Your task to perform on an android device: turn off picture-in-picture Image 0: 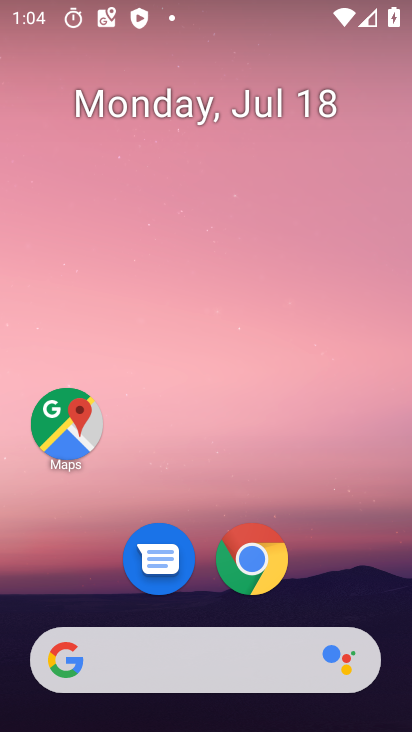
Step 0: drag from (42, 561) to (265, 1)
Your task to perform on an android device: turn off picture-in-picture Image 1: 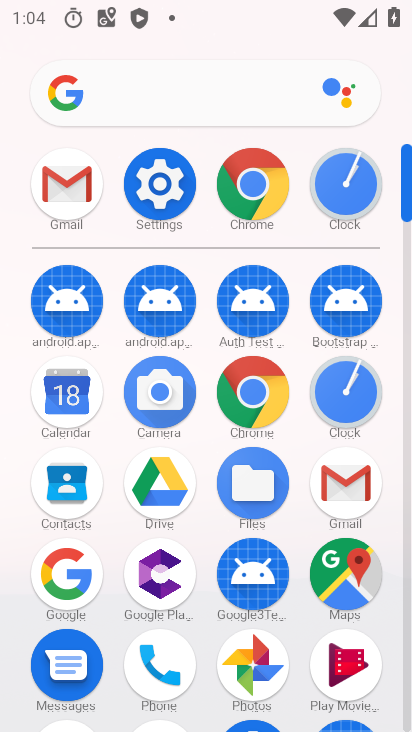
Step 1: click (158, 192)
Your task to perform on an android device: turn off picture-in-picture Image 2: 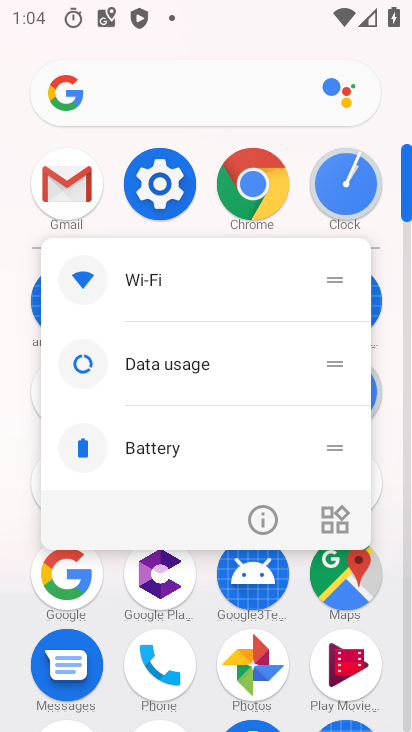
Step 2: click (153, 176)
Your task to perform on an android device: turn off picture-in-picture Image 3: 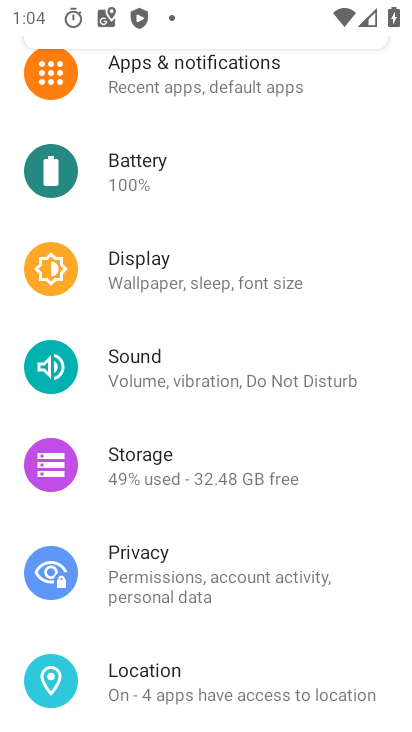
Step 3: drag from (174, 163) to (144, 680)
Your task to perform on an android device: turn off picture-in-picture Image 4: 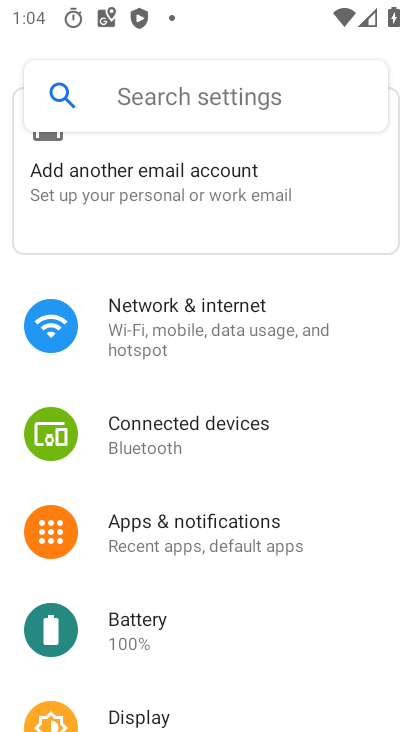
Step 4: click (209, 533)
Your task to perform on an android device: turn off picture-in-picture Image 5: 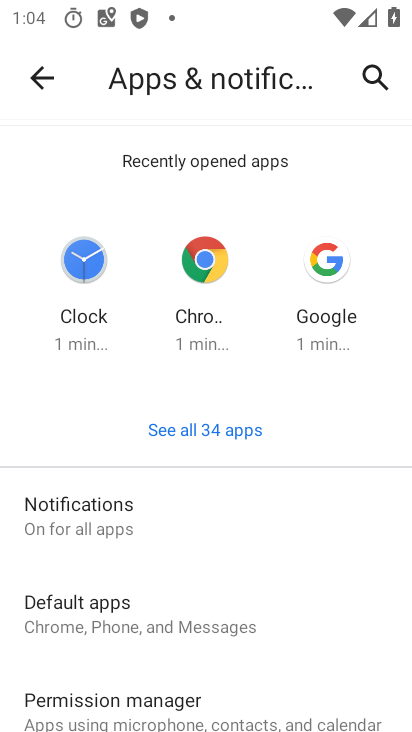
Step 5: drag from (154, 643) to (246, 5)
Your task to perform on an android device: turn off picture-in-picture Image 6: 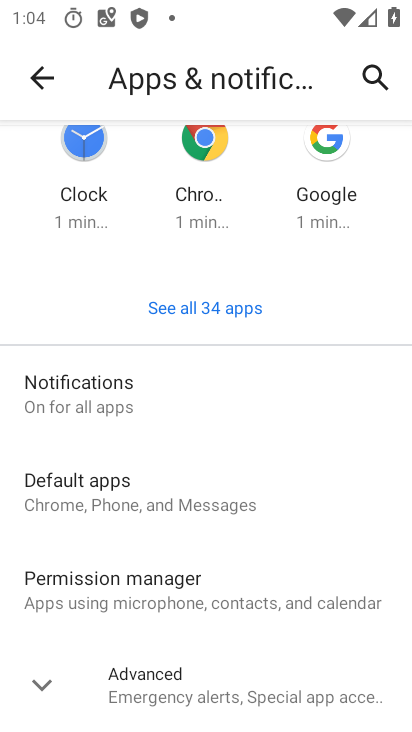
Step 6: click (178, 697)
Your task to perform on an android device: turn off picture-in-picture Image 7: 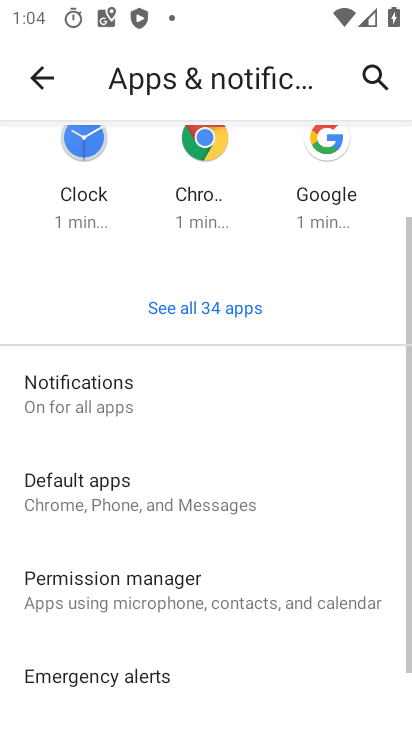
Step 7: drag from (175, 680) to (172, 46)
Your task to perform on an android device: turn off picture-in-picture Image 8: 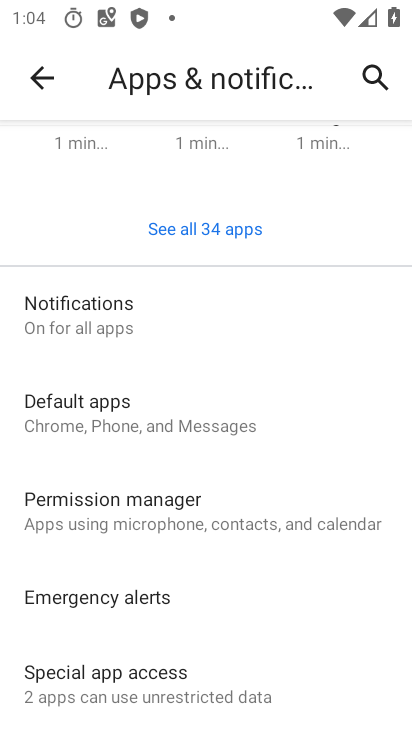
Step 8: click (105, 675)
Your task to perform on an android device: turn off picture-in-picture Image 9: 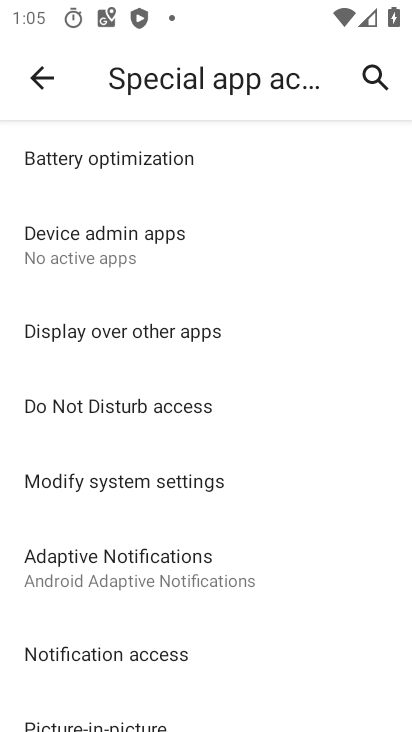
Step 9: drag from (94, 668) to (150, 328)
Your task to perform on an android device: turn off picture-in-picture Image 10: 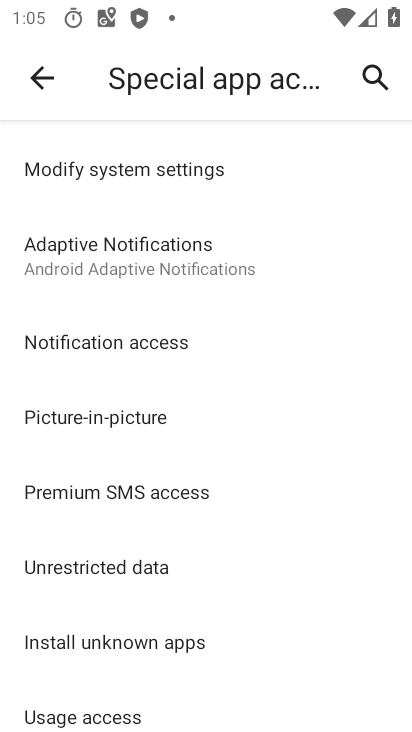
Step 10: click (103, 414)
Your task to perform on an android device: turn off picture-in-picture Image 11: 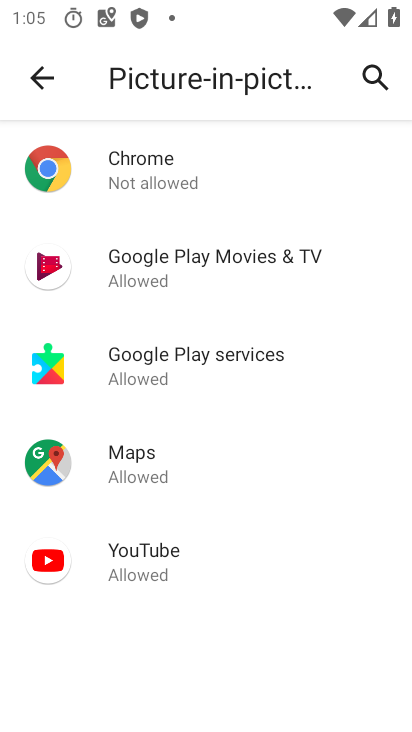
Step 11: click (135, 166)
Your task to perform on an android device: turn off picture-in-picture Image 12: 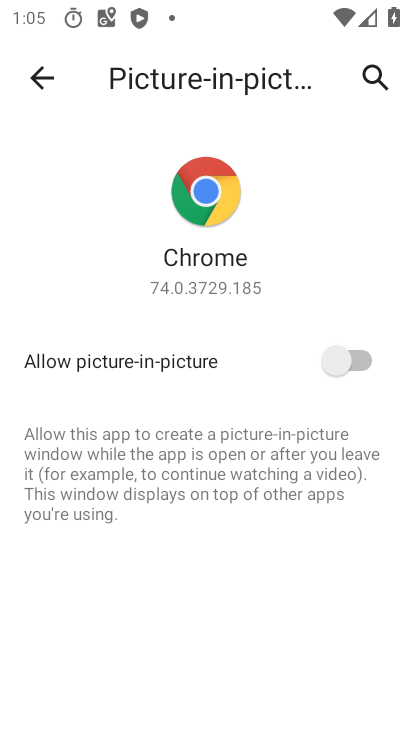
Step 12: click (36, 53)
Your task to perform on an android device: turn off picture-in-picture Image 13: 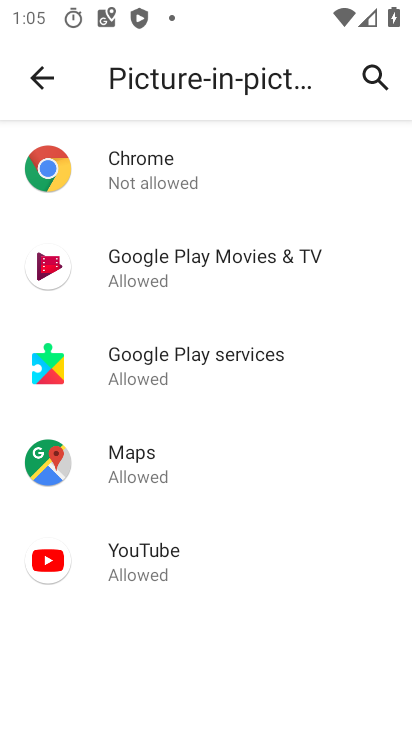
Step 13: click (171, 257)
Your task to perform on an android device: turn off picture-in-picture Image 14: 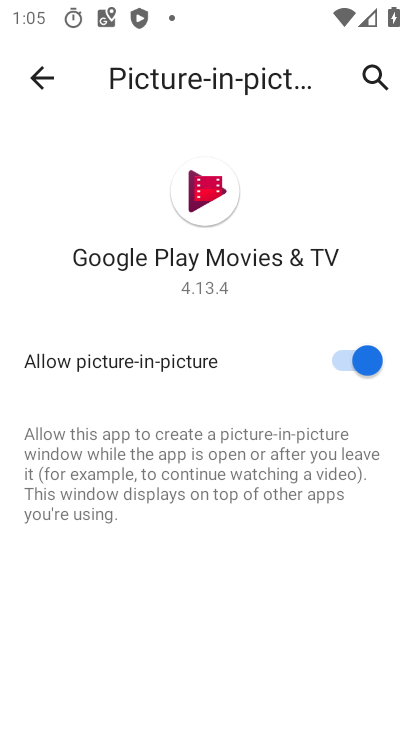
Step 14: click (383, 356)
Your task to perform on an android device: turn off picture-in-picture Image 15: 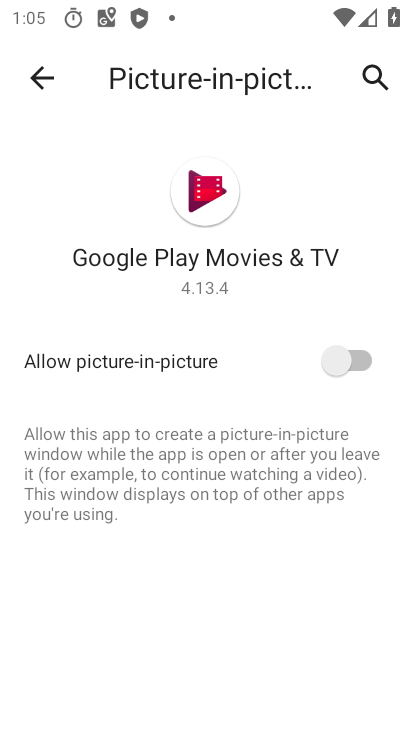
Step 15: task complete